Your task to perform on an android device: Open accessibility settings Image 0: 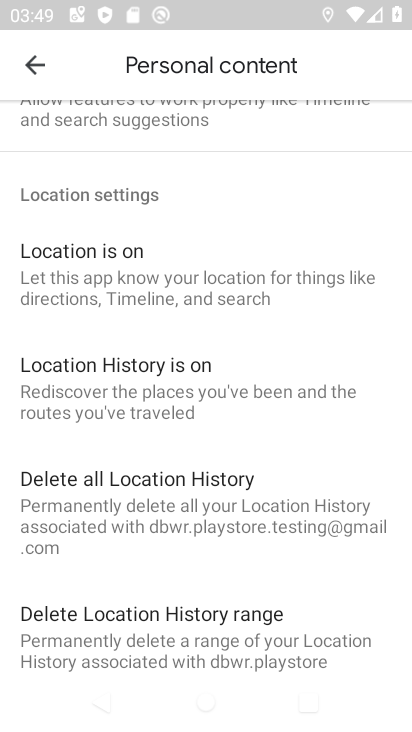
Step 0: press home button
Your task to perform on an android device: Open accessibility settings Image 1: 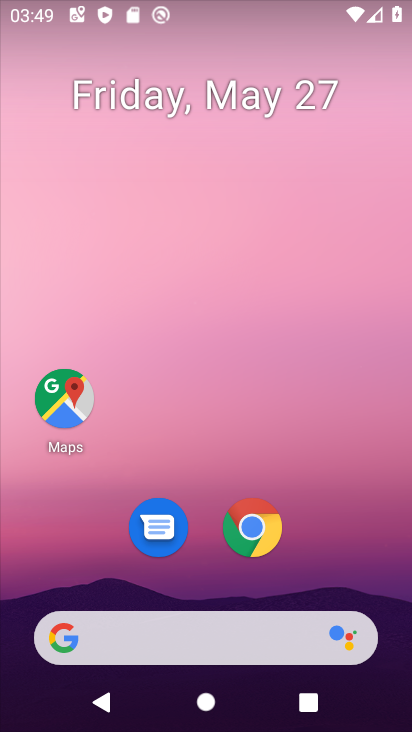
Step 1: drag from (372, 543) to (327, 222)
Your task to perform on an android device: Open accessibility settings Image 2: 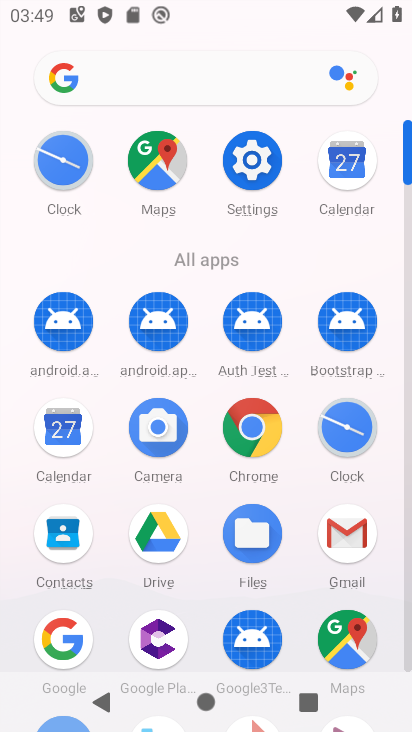
Step 2: click (271, 186)
Your task to perform on an android device: Open accessibility settings Image 3: 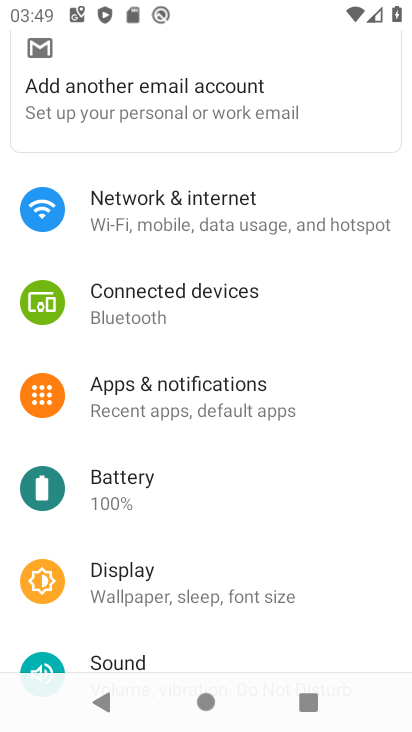
Step 3: drag from (325, 600) to (299, 75)
Your task to perform on an android device: Open accessibility settings Image 4: 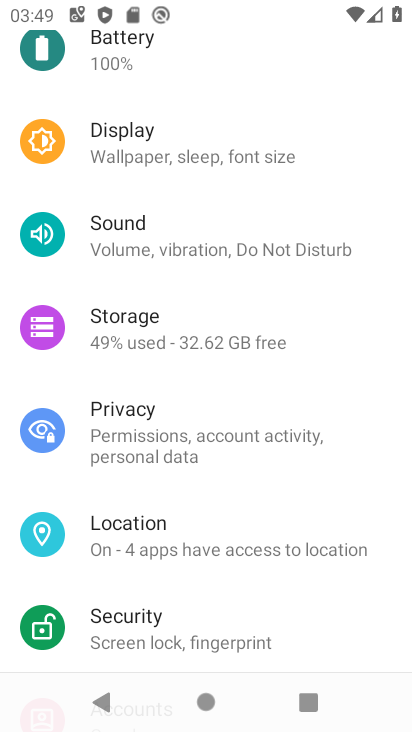
Step 4: drag from (235, 538) to (240, 0)
Your task to perform on an android device: Open accessibility settings Image 5: 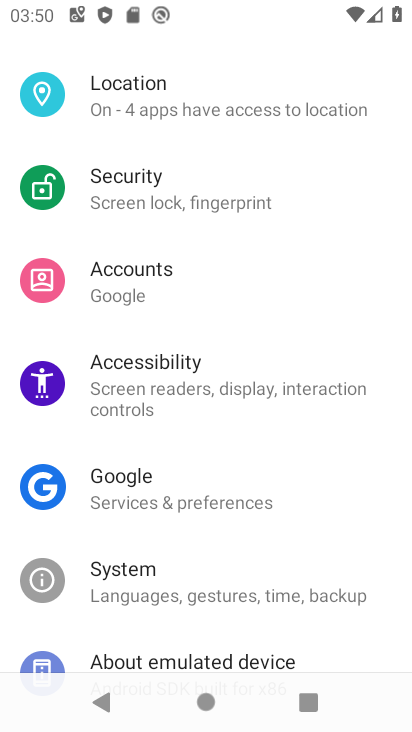
Step 5: click (227, 366)
Your task to perform on an android device: Open accessibility settings Image 6: 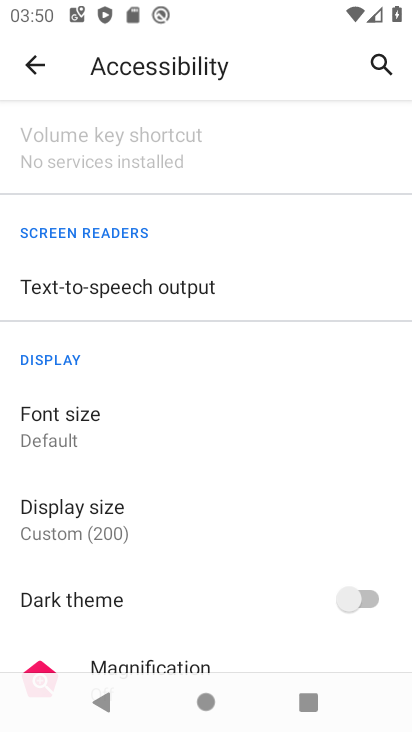
Step 6: task complete